Your task to perform on an android device: star an email in the gmail app Image 0: 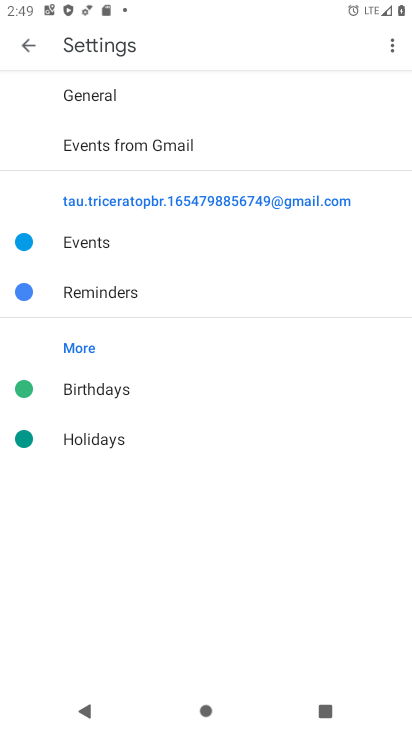
Step 0: press back button
Your task to perform on an android device: star an email in the gmail app Image 1: 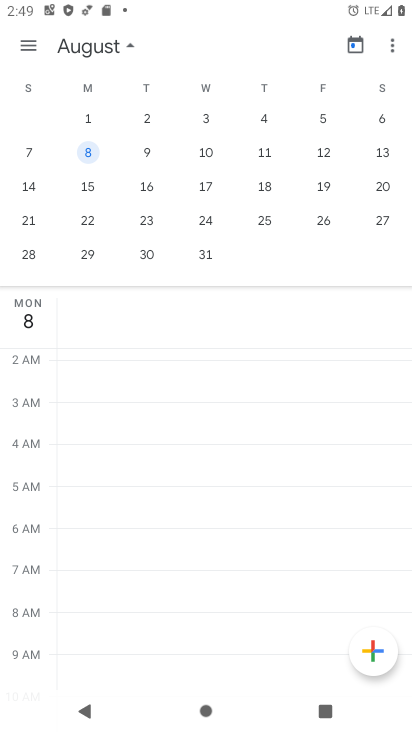
Step 1: press back button
Your task to perform on an android device: star an email in the gmail app Image 2: 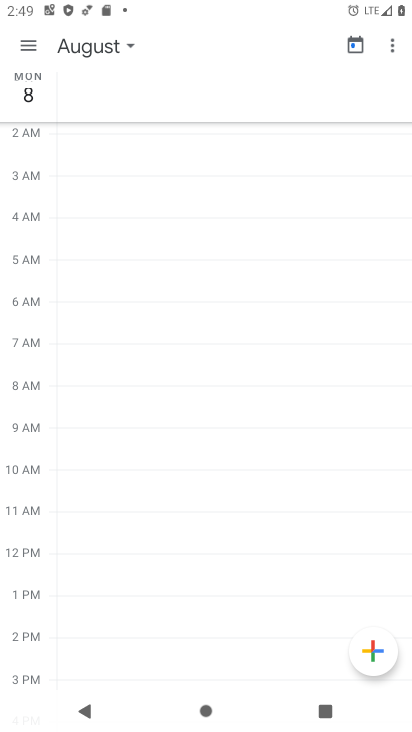
Step 2: press back button
Your task to perform on an android device: star an email in the gmail app Image 3: 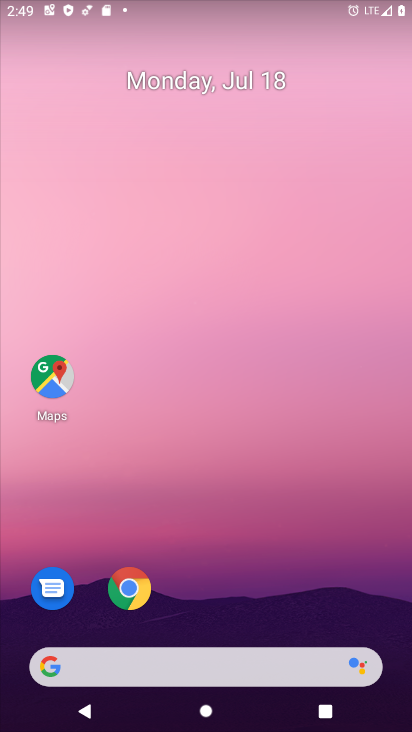
Step 3: drag from (206, 517) to (271, 79)
Your task to perform on an android device: star an email in the gmail app Image 4: 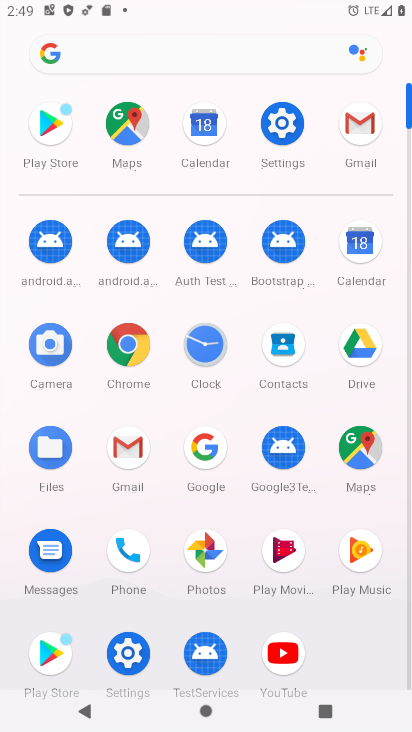
Step 4: click (363, 124)
Your task to perform on an android device: star an email in the gmail app Image 5: 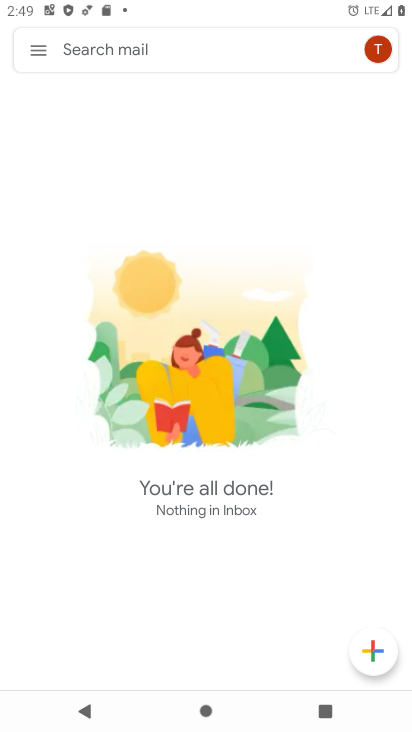
Step 5: click (33, 47)
Your task to perform on an android device: star an email in the gmail app Image 6: 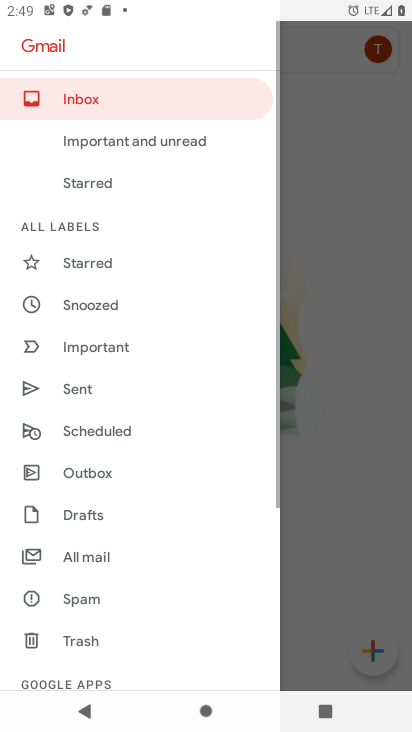
Step 6: click (86, 549)
Your task to perform on an android device: star an email in the gmail app Image 7: 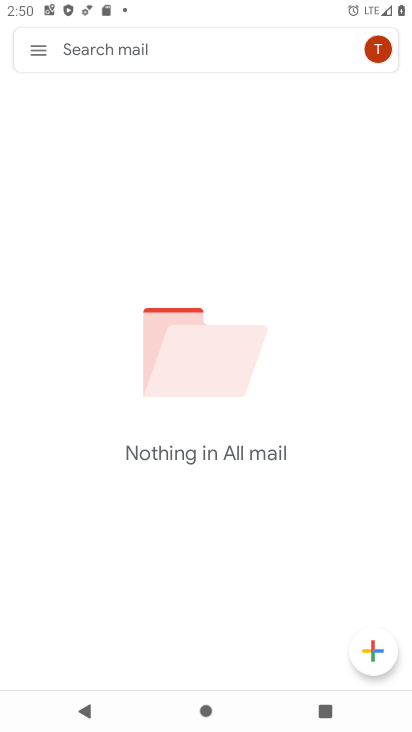
Step 7: task complete